Your task to perform on an android device: turn off javascript in the chrome app Image 0: 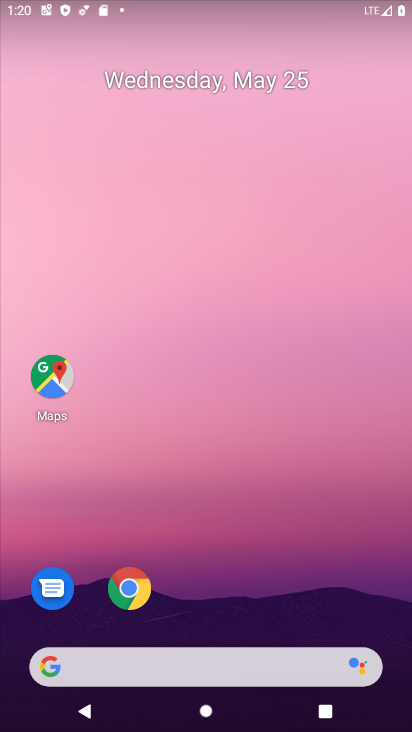
Step 0: click (135, 589)
Your task to perform on an android device: turn off javascript in the chrome app Image 1: 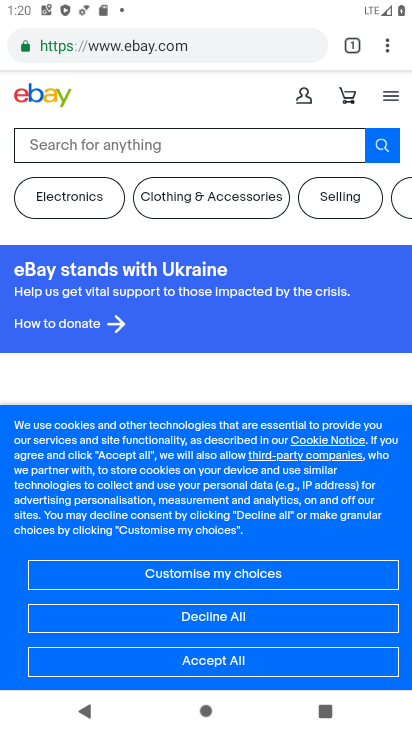
Step 1: click (393, 50)
Your task to perform on an android device: turn off javascript in the chrome app Image 2: 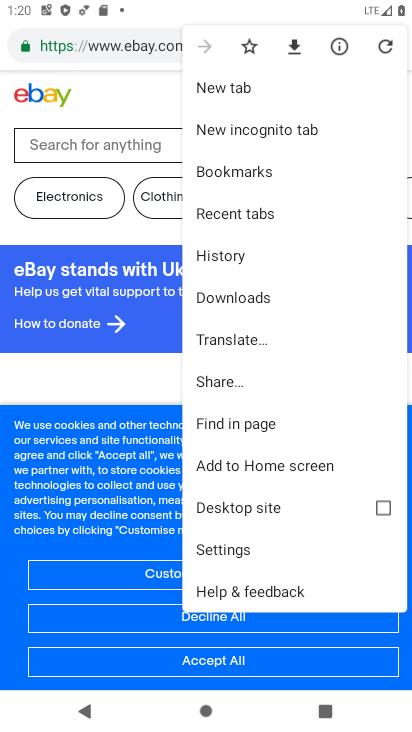
Step 2: click (221, 549)
Your task to perform on an android device: turn off javascript in the chrome app Image 3: 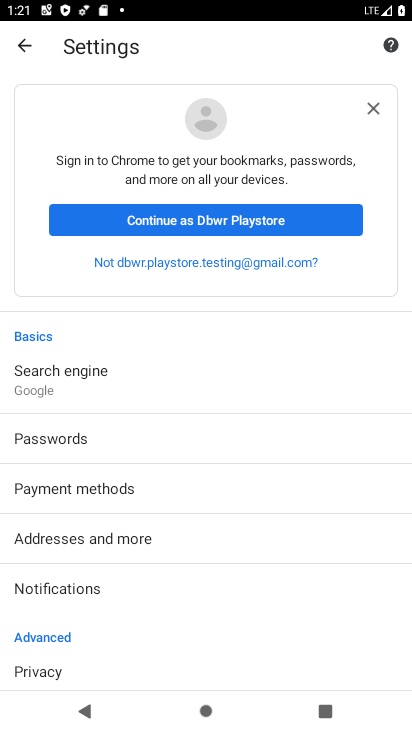
Step 3: drag from (168, 593) to (188, 204)
Your task to perform on an android device: turn off javascript in the chrome app Image 4: 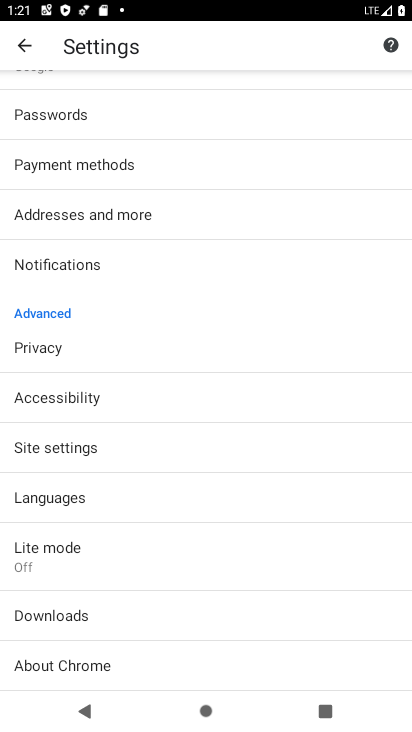
Step 4: click (37, 454)
Your task to perform on an android device: turn off javascript in the chrome app Image 5: 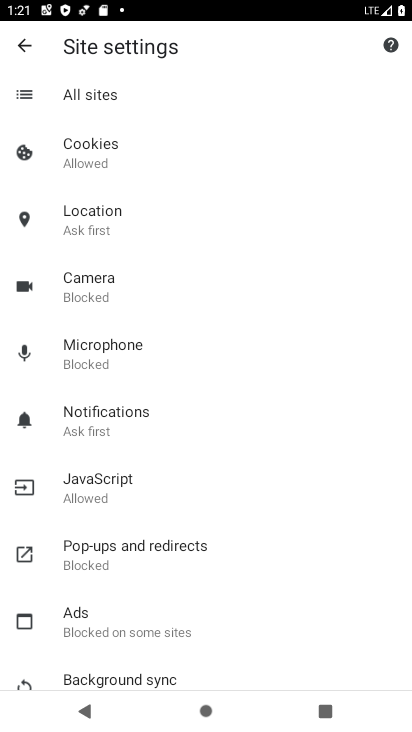
Step 5: click (91, 489)
Your task to perform on an android device: turn off javascript in the chrome app Image 6: 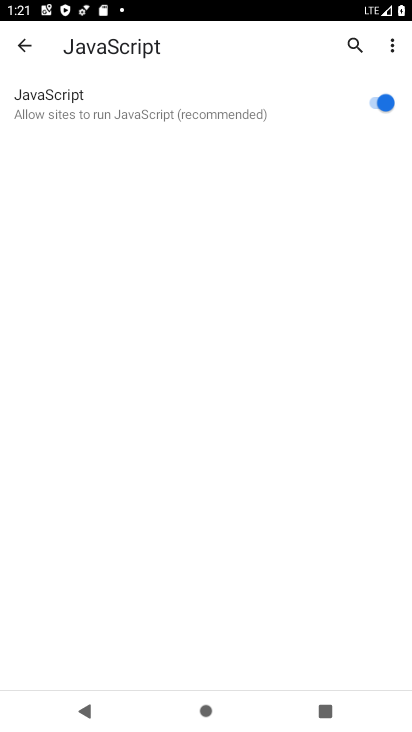
Step 6: click (387, 110)
Your task to perform on an android device: turn off javascript in the chrome app Image 7: 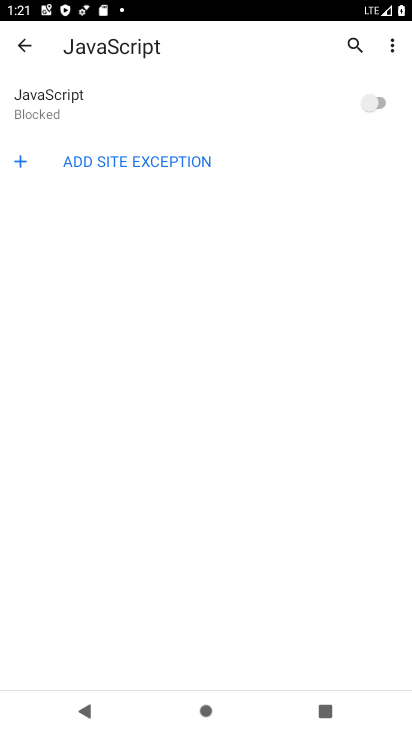
Step 7: task complete